Your task to perform on an android device: turn on the 12-hour format for clock Image 0: 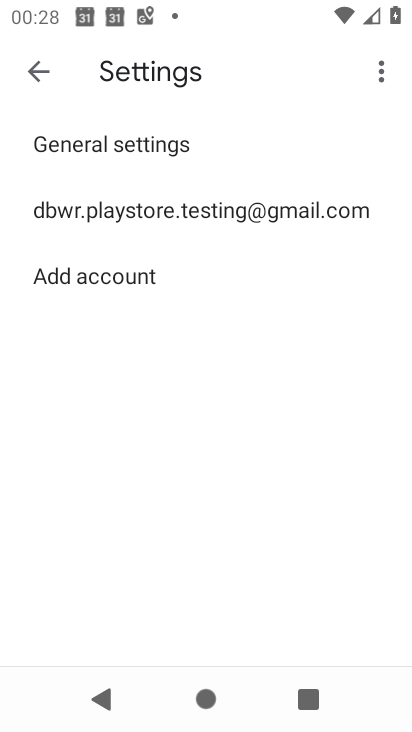
Step 0: press home button
Your task to perform on an android device: turn on the 12-hour format for clock Image 1: 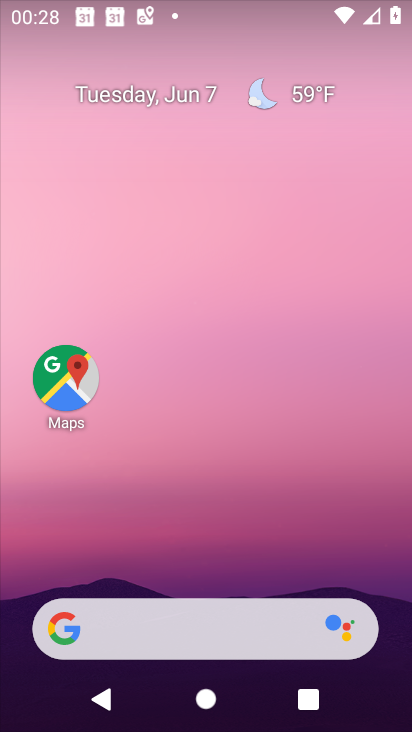
Step 1: drag from (207, 446) to (190, 101)
Your task to perform on an android device: turn on the 12-hour format for clock Image 2: 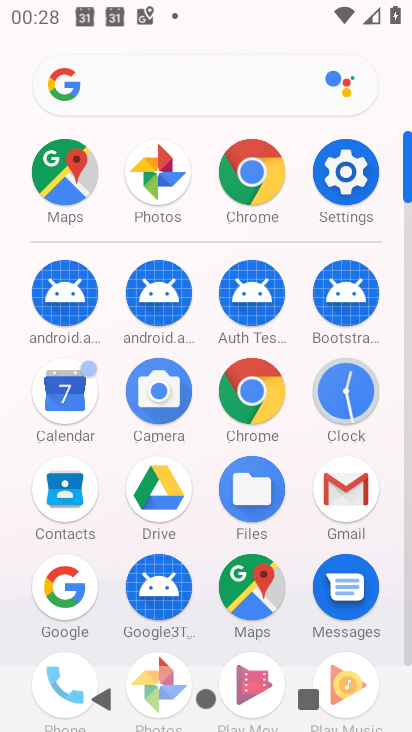
Step 2: click (347, 395)
Your task to perform on an android device: turn on the 12-hour format for clock Image 3: 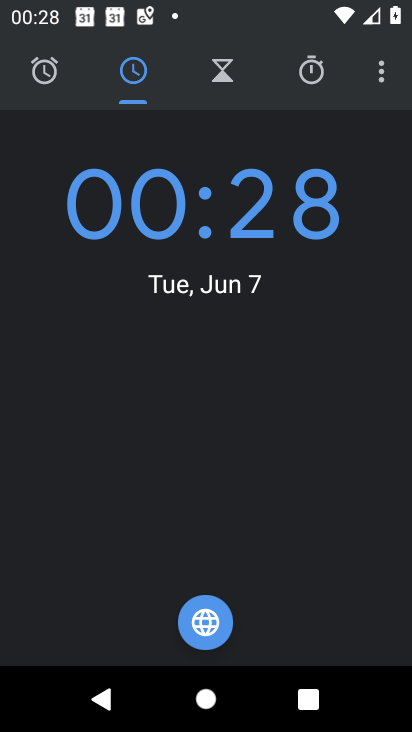
Step 3: click (374, 84)
Your task to perform on an android device: turn on the 12-hour format for clock Image 4: 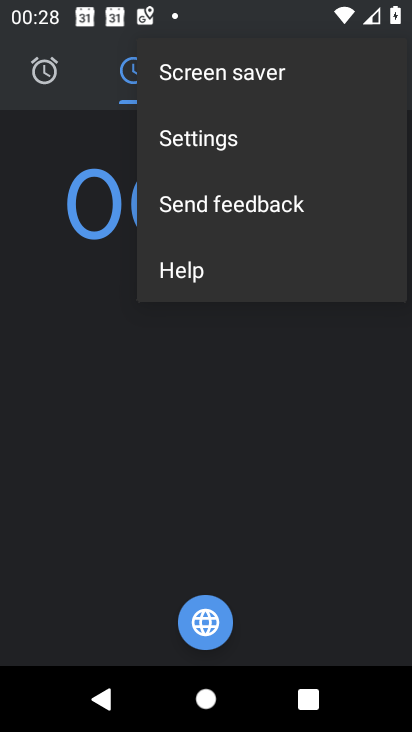
Step 4: click (223, 151)
Your task to perform on an android device: turn on the 12-hour format for clock Image 5: 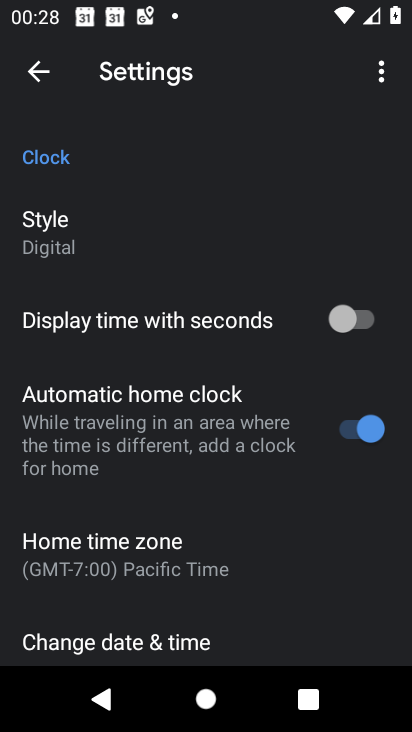
Step 5: drag from (151, 436) to (147, 203)
Your task to perform on an android device: turn on the 12-hour format for clock Image 6: 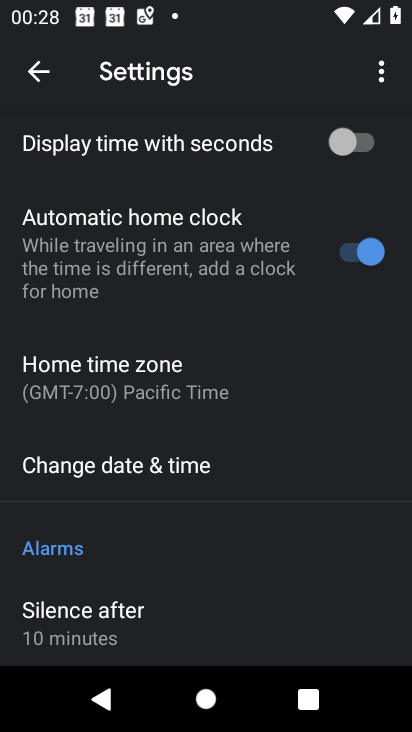
Step 6: click (127, 474)
Your task to perform on an android device: turn on the 12-hour format for clock Image 7: 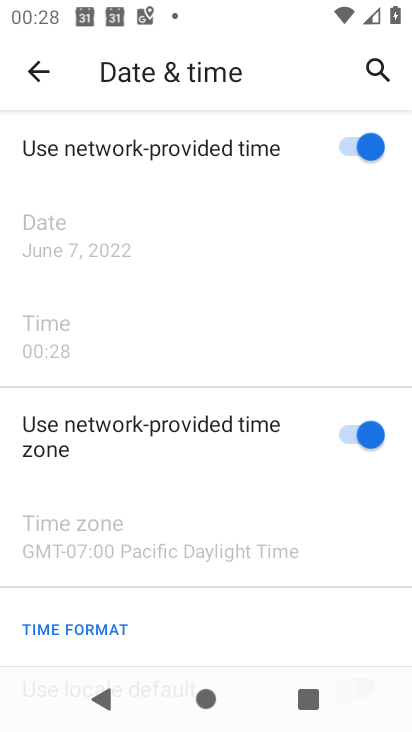
Step 7: task complete